Your task to perform on an android device: change the clock display to show seconds Image 0: 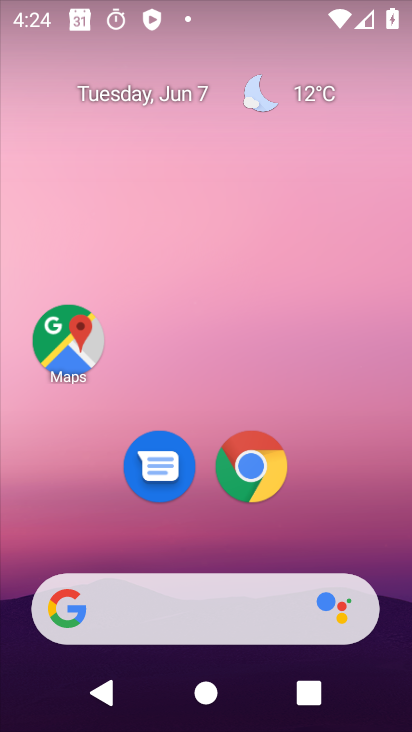
Step 0: drag from (376, 540) to (398, 11)
Your task to perform on an android device: change the clock display to show seconds Image 1: 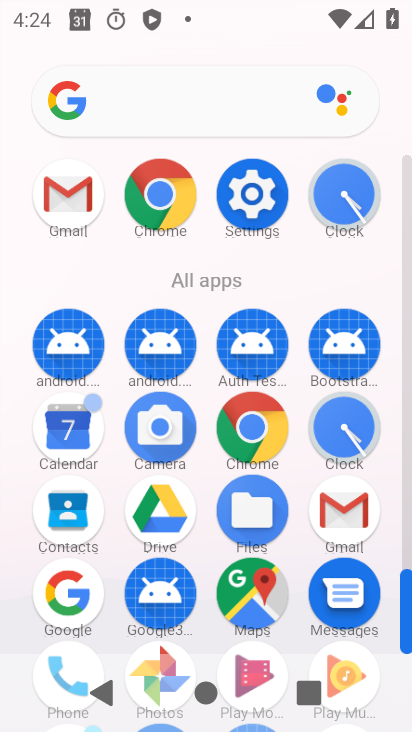
Step 1: click (347, 186)
Your task to perform on an android device: change the clock display to show seconds Image 2: 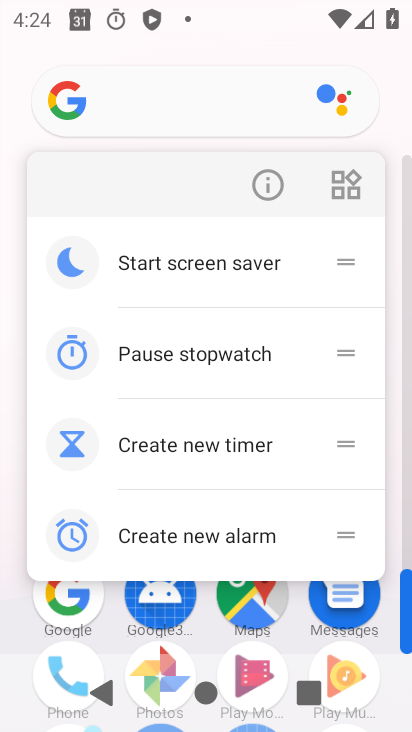
Step 2: click (393, 137)
Your task to perform on an android device: change the clock display to show seconds Image 3: 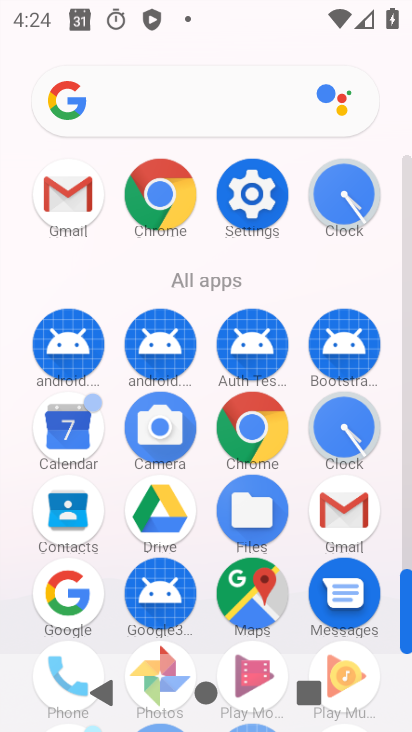
Step 3: click (357, 178)
Your task to perform on an android device: change the clock display to show seconds Image 4: 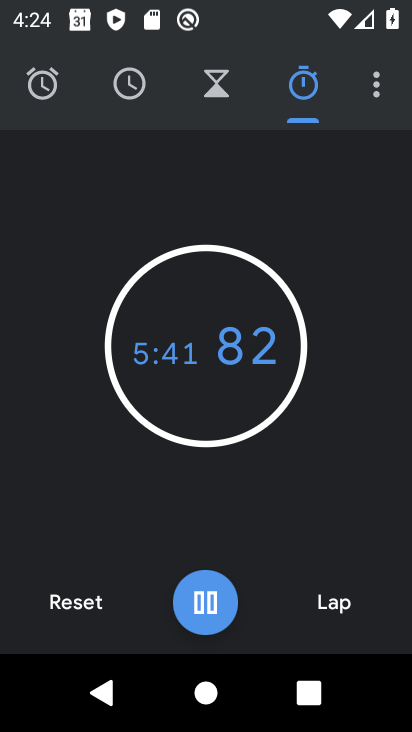
Step 4: click (385, 80)
Your task to perform on an android device: change the clock display to show seconds Image 5: 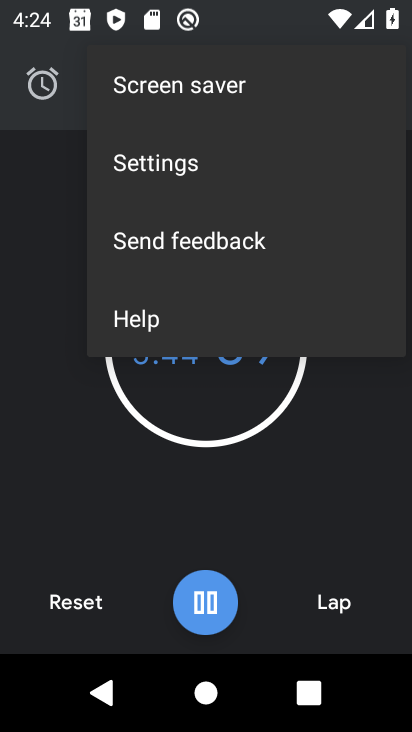
Step 5: click (268, 172)
Your task to perform on an android device: change the clock display to show seconds Image 6: 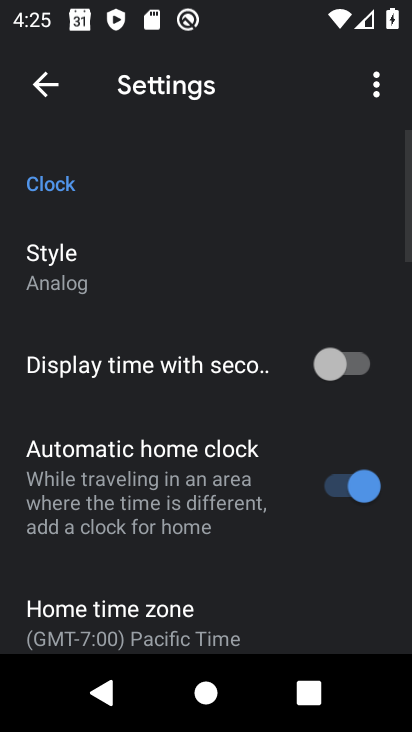
Step 6: click (354, 344)
Your task to perform on an android device: change the clock display to show seconds Image 7: 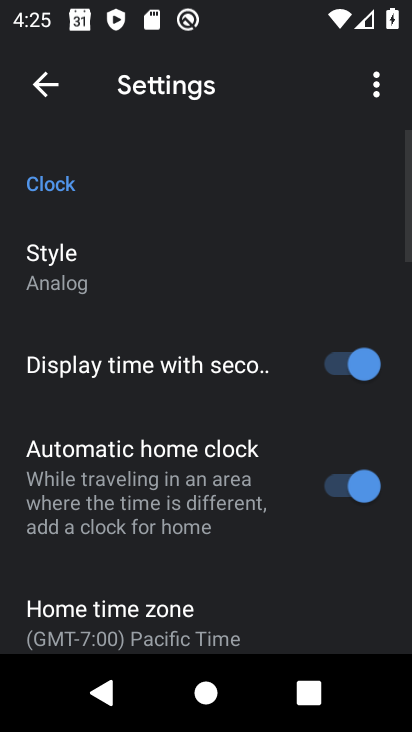
Step 7: task complete